Your task to perform on an android device: empty trash in google photos Image 0: 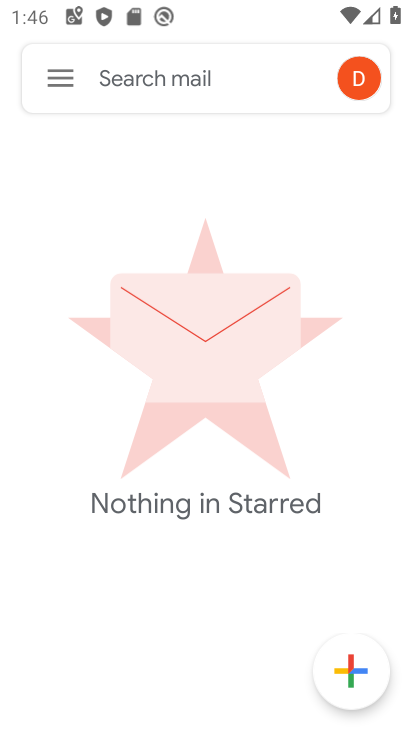
Step 0: press home button
Your task to perform on an android device: empty trash in google photos Image 1: 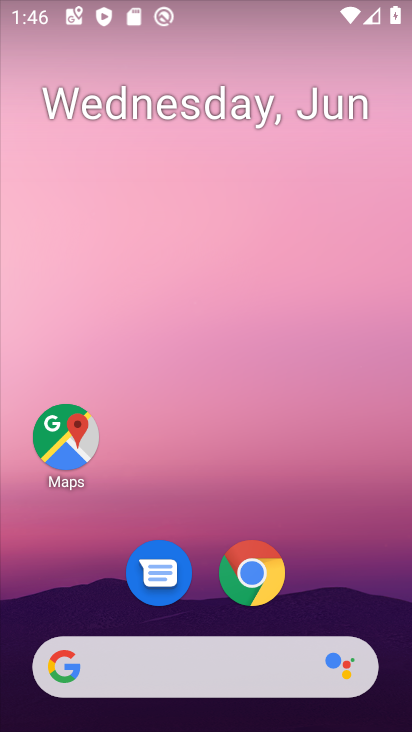
Step 1: drag from (341, 558) to (328, 44)
Your task to perform on an android device: empty trash in google photos Image 2: 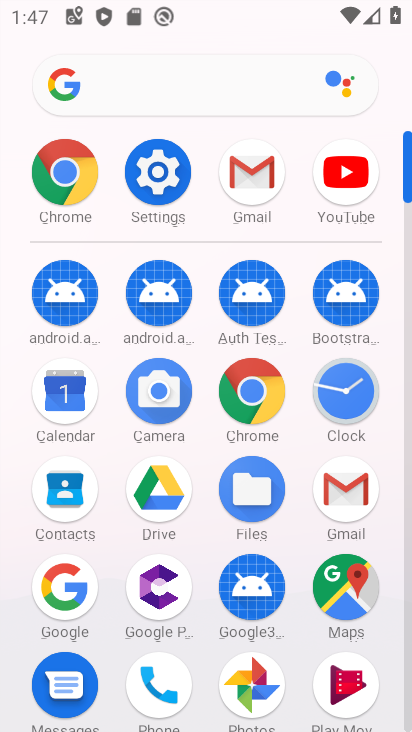
Step 2: click (264, 689)
Your task to perform on an android device: empty trash in google photos Image 3: 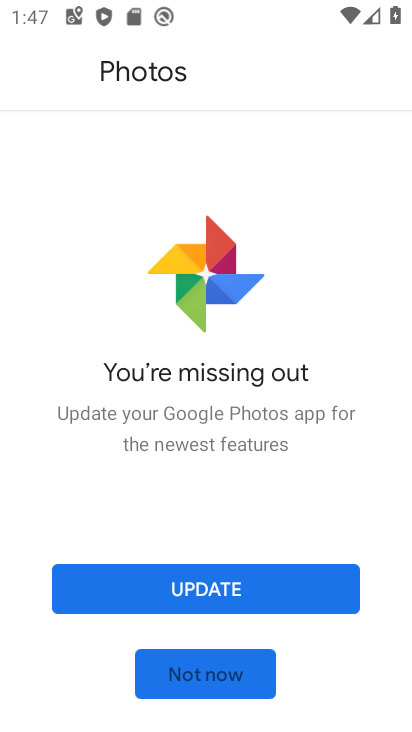
Step 3: click (255, 583)
Your task to perform on an android device: empty trash in google photos Image 4: 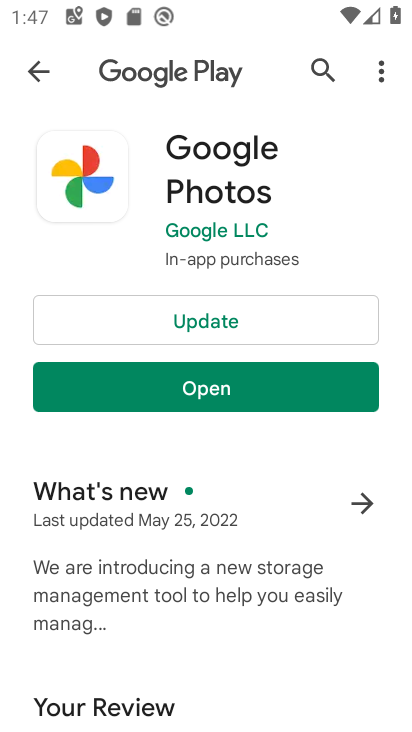
Step 4: click (288, 330)
Your task to perform on an android device: empty trash in google photos Image 5: 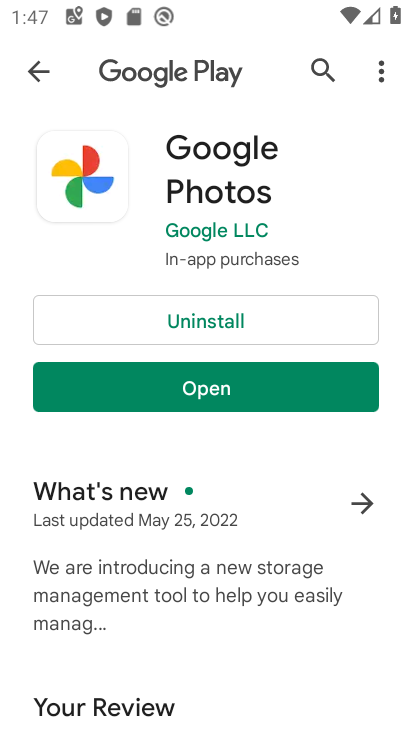
Step 5: task complete